Your task to perform on an android device: toggle wifi Image 0: 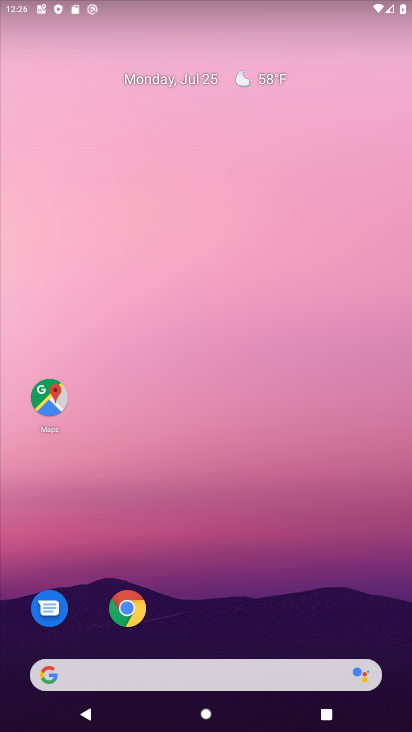
Step 0: drag from (168, 674) to (222, 14)
Your task to perform on an android device: toggle wifi Image 1: 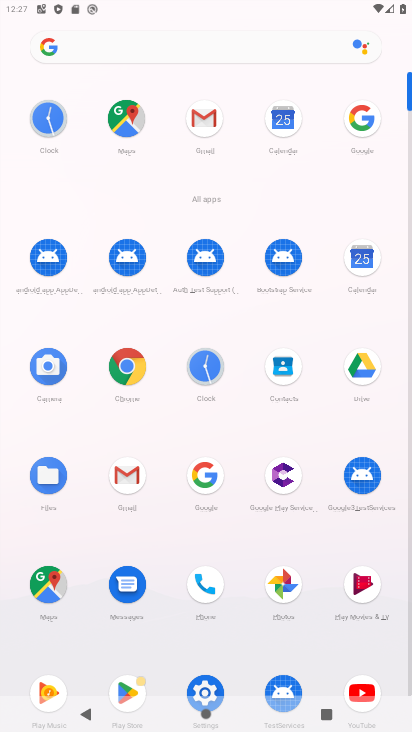
Step 1: click (203, 687)
Your task to perform on an android device: toggle wifi Image 2: 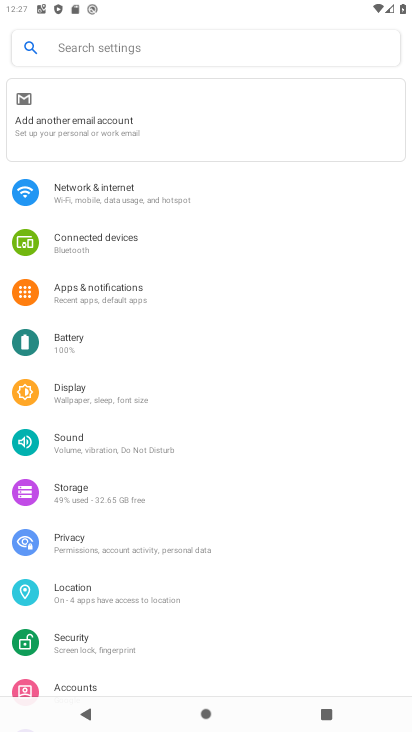
Step 2: click (83, 190)
Your task to perform on an android device: toggle wifi Image 3: 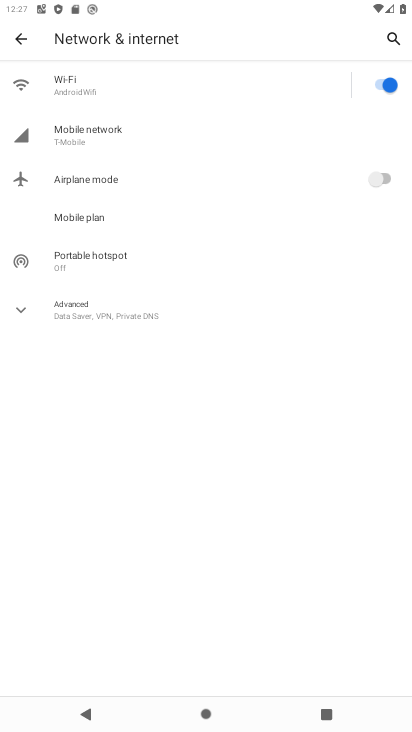
Step 3: click (382, 87)
Your task to perform on an android device: toggle wifi Image 4: 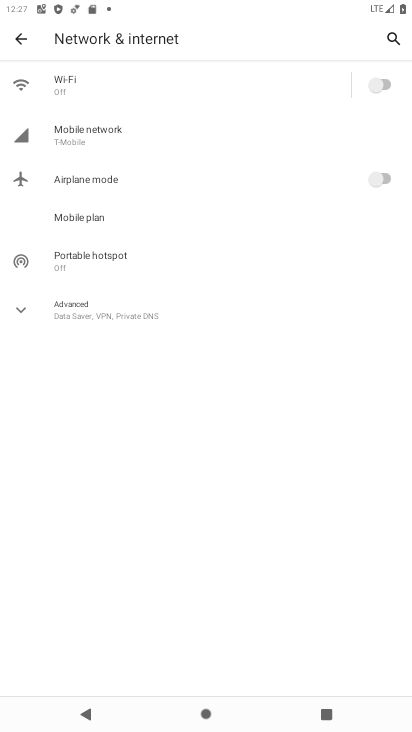
Step 4: task complete